Your task to perform on an android device: Open Chrome and go to settings Image 0: 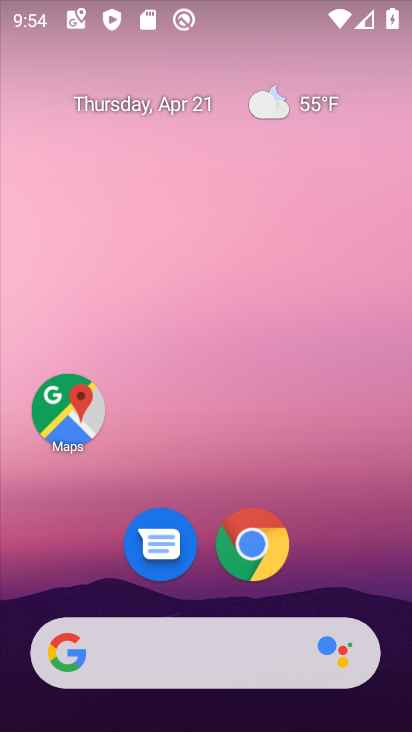
Step 0: drag from (292, 170) to (272, 23)
Your task to perform on an android device: Open Chrome and go to settings Image 1: 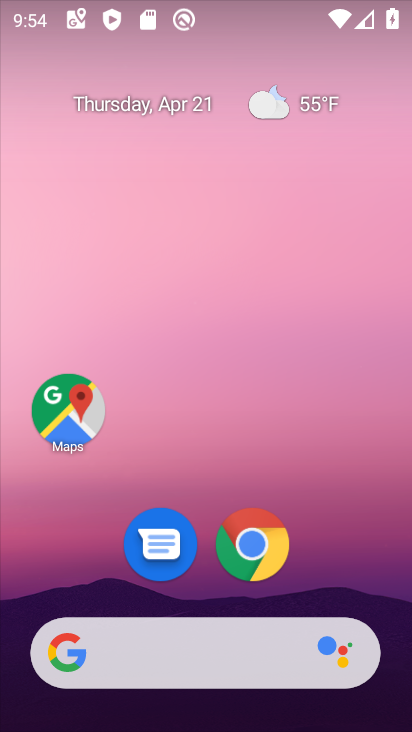
Step 1: drag from (326, 571) to (253, 25)
Your task to perform on an android device: Open Chrome and go to settings Image 2: 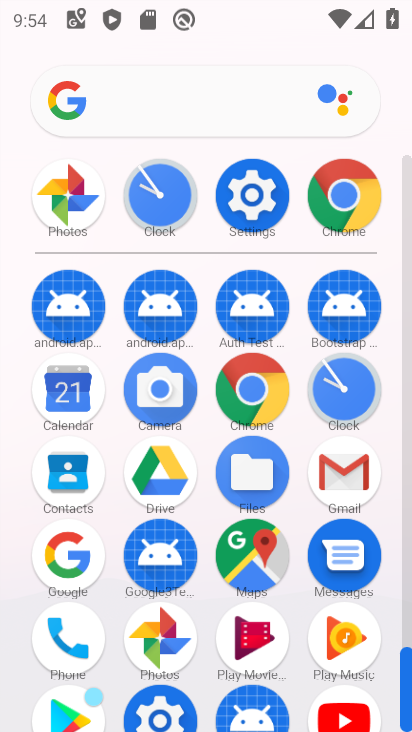
Step 2: drag from (10, 651) to (27, 243)
Your task to perform on an android device: Open Chrome and go to settings Image 3: 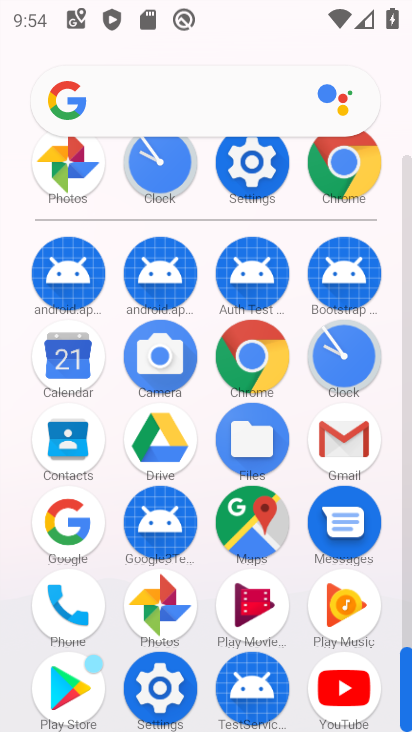
Step 3: click (347, 162)
Your task to perform on an android device: Open Chrome and go to settings Image 4: 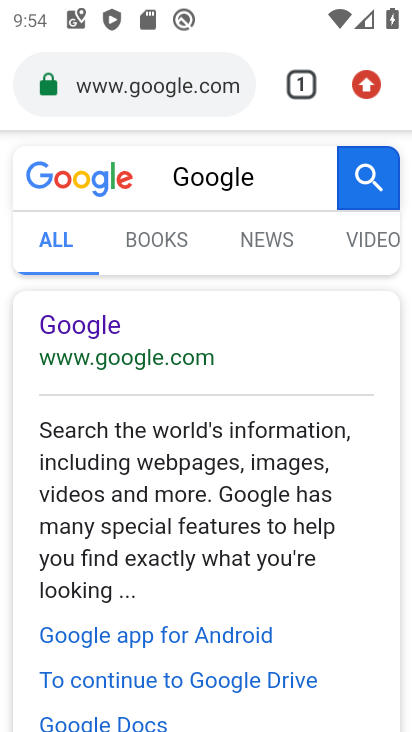
Step 4: task complete